Your task to perform on an android device: check android version Image 0: 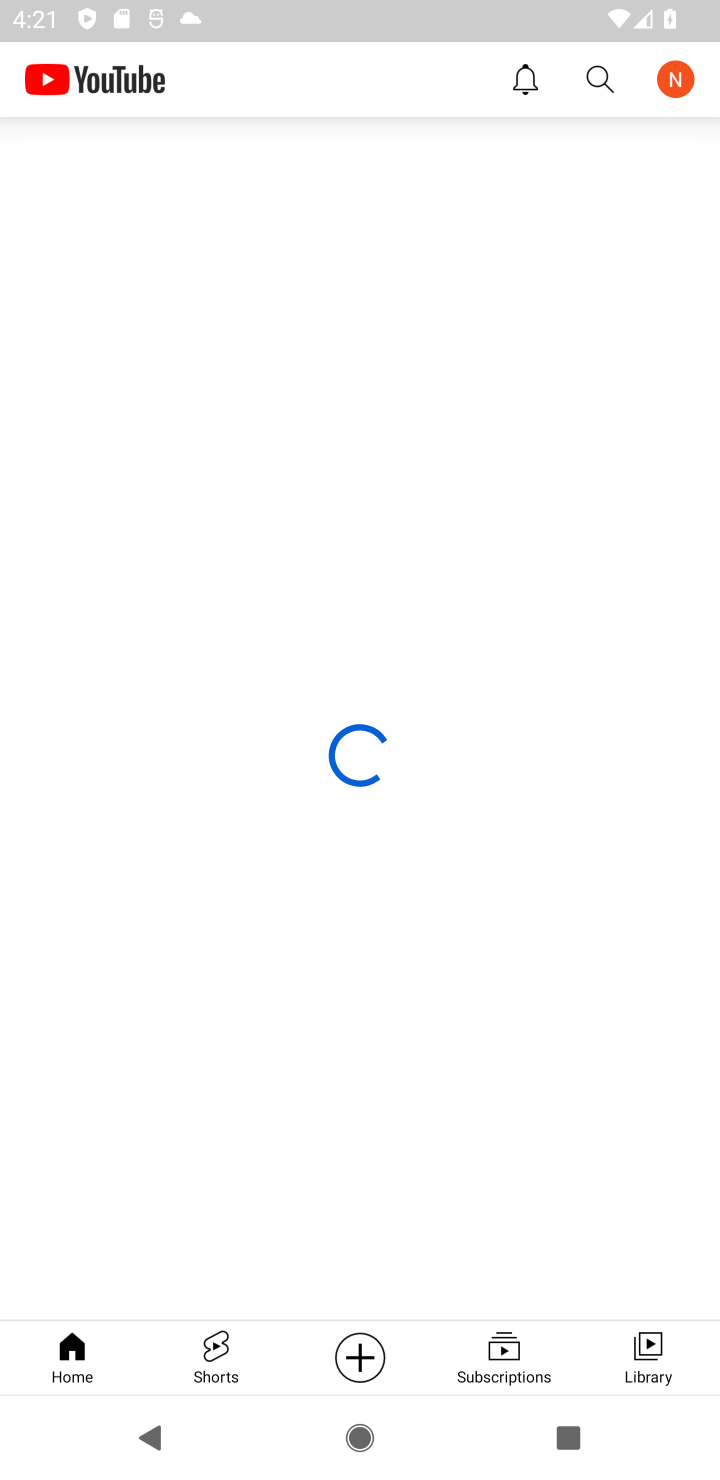
Step 0: press home button
Your task to perform on an android device: check android version Image 1: 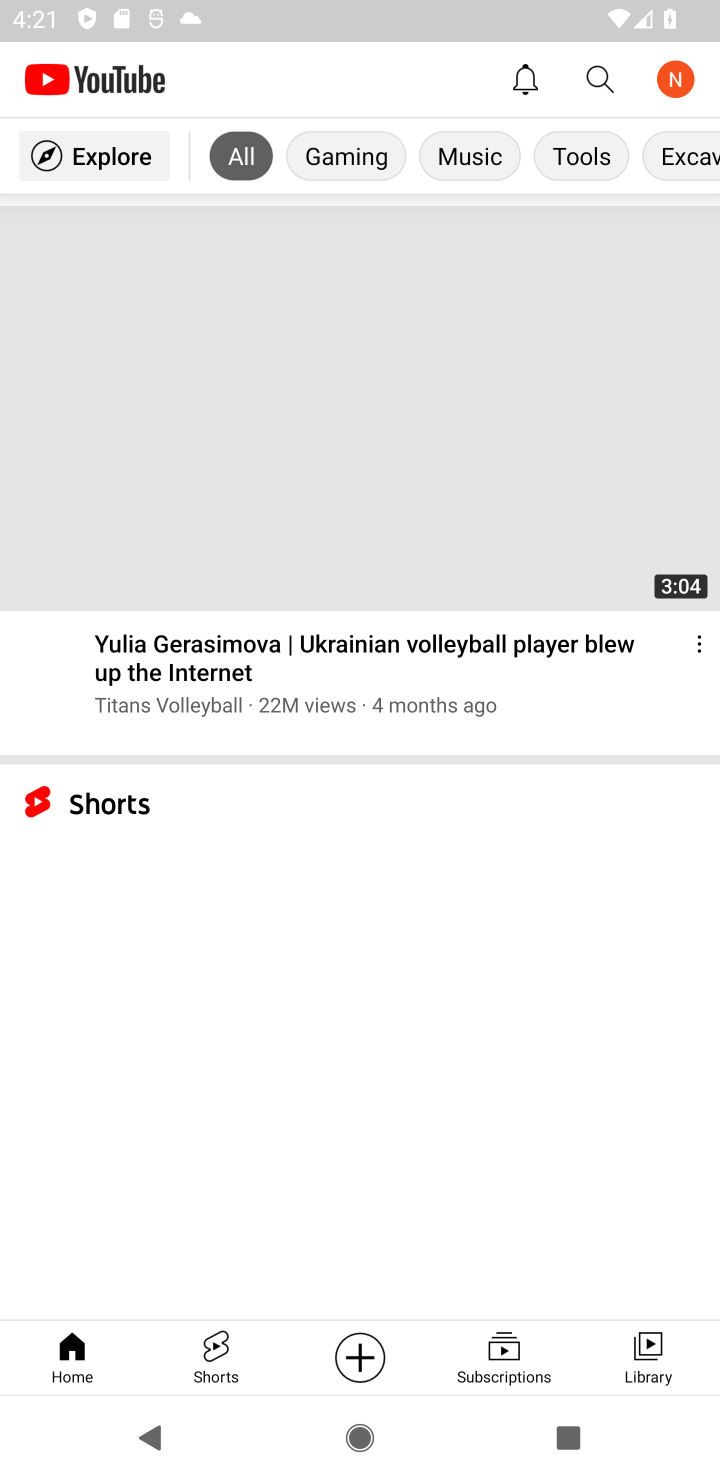
Step 1: drag from (406, 828) to (446, 561)
Your task to perform on an android device: check android version Image 2: 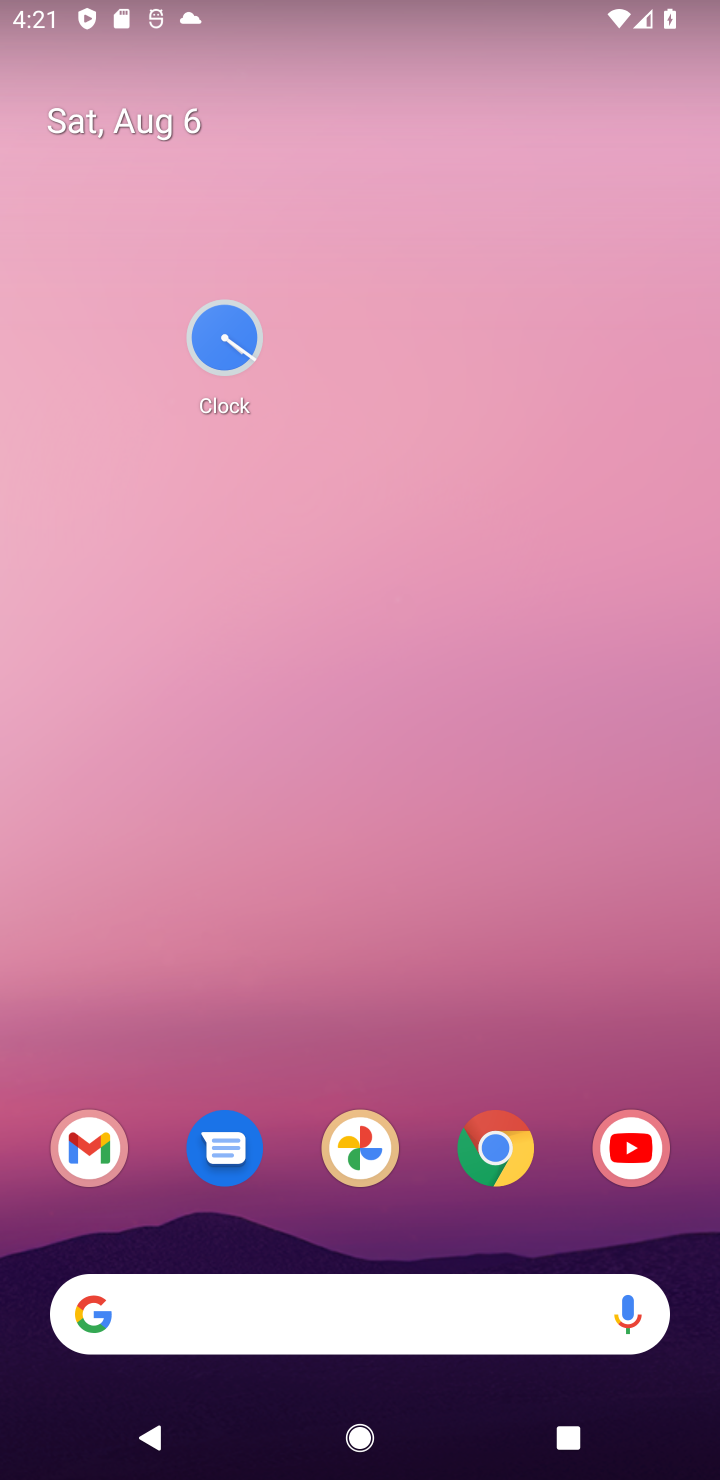
Step 2: drag from (426, 1000) to (486, 103)
Your task to perform on an android device: check android version Image 3: 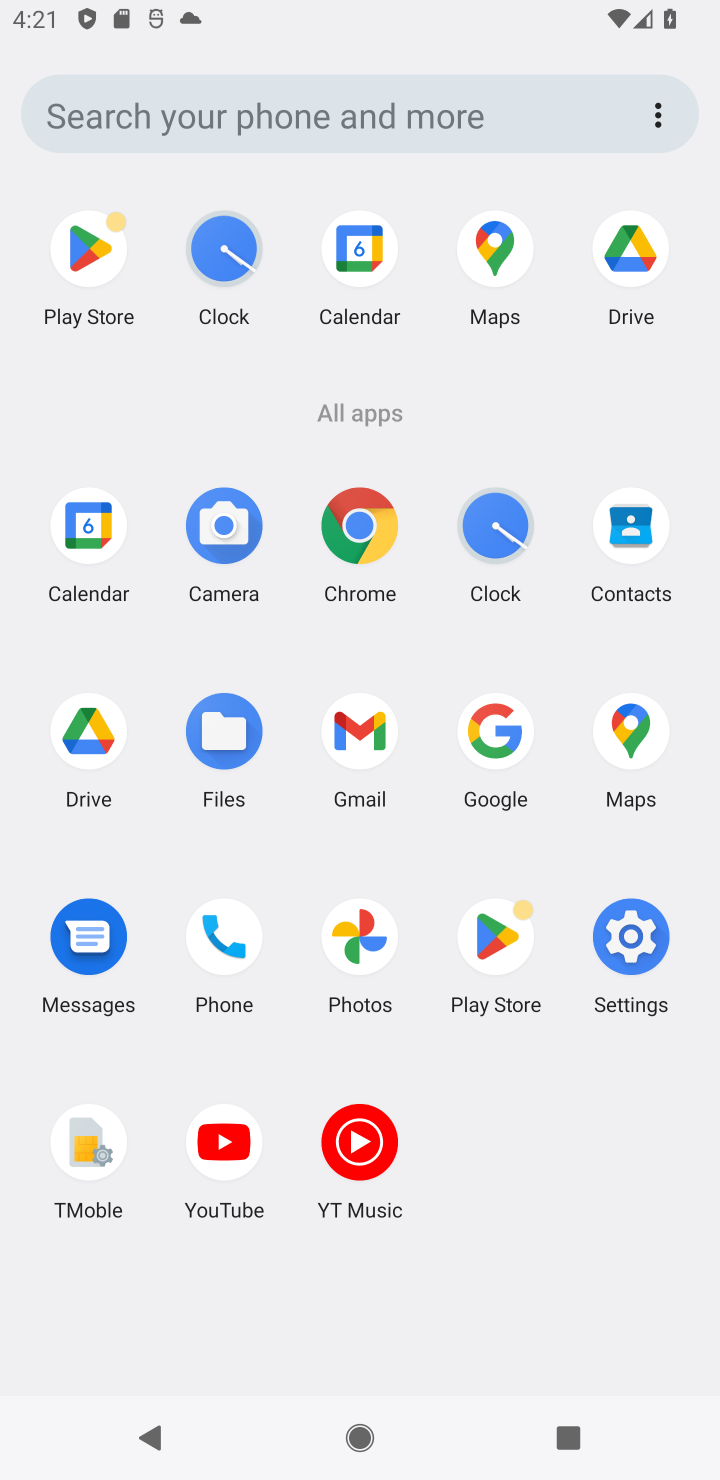
Step 3: click (632, 949)
Your task to perform on an android device: check android version Image 4: 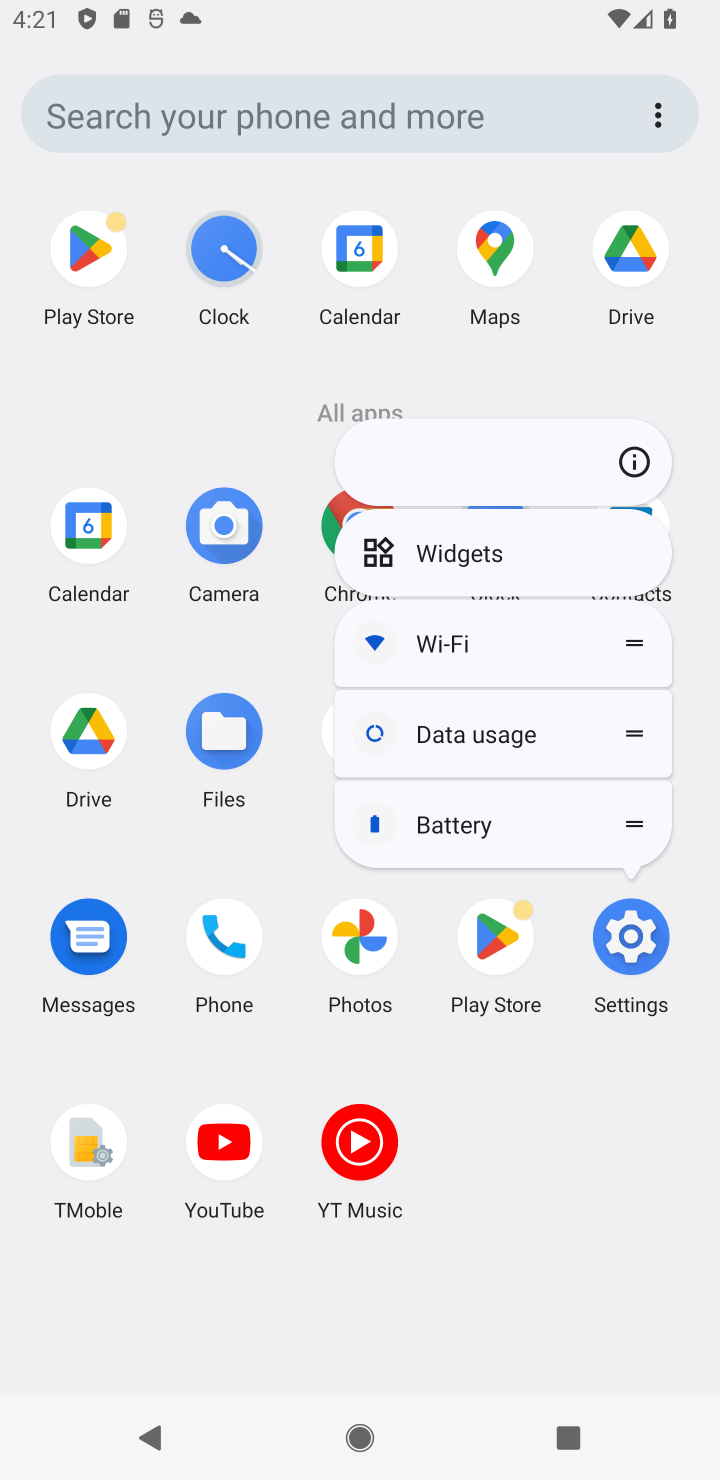
Step 4: click (612, 459)
Your task to perform on an android device: check android version Image 5: 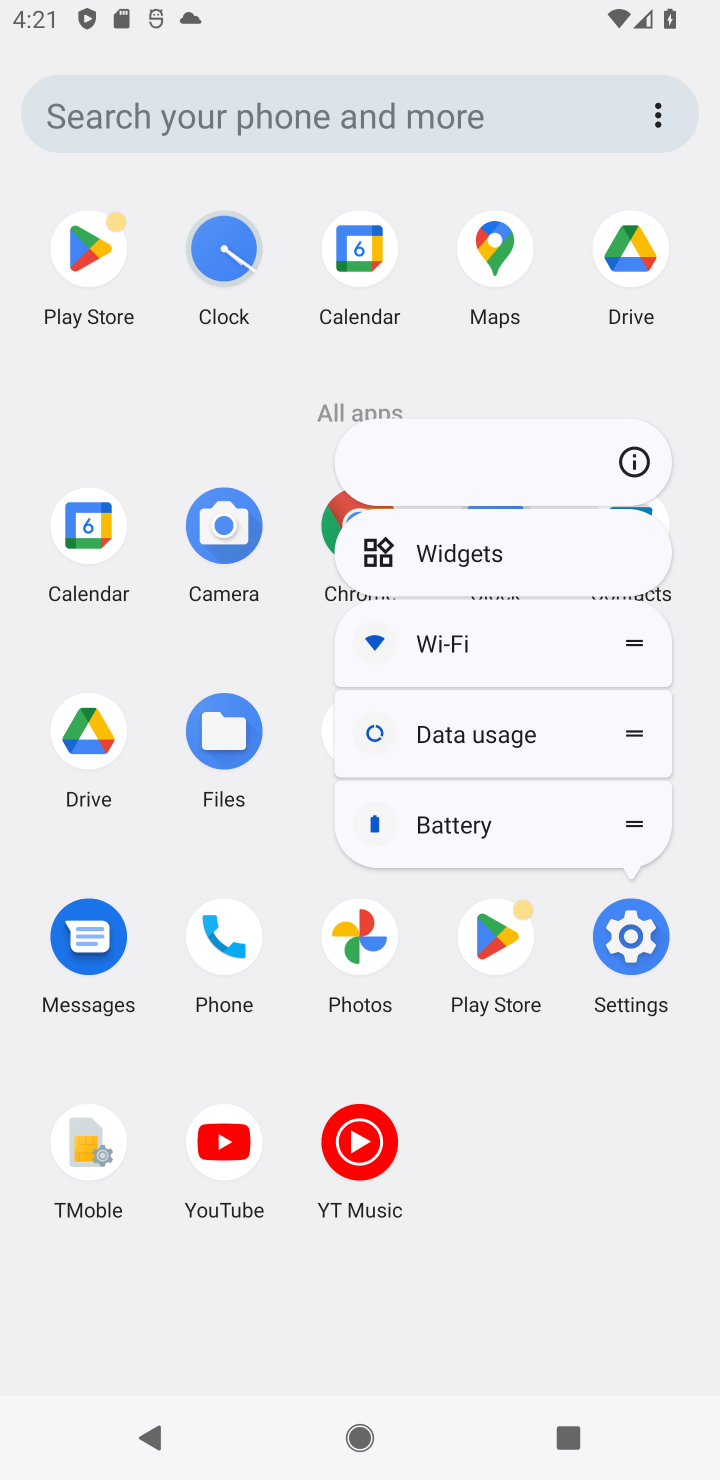
Step 5: click (641, 460)
Your task to perform on an android device: check android version Image 6: 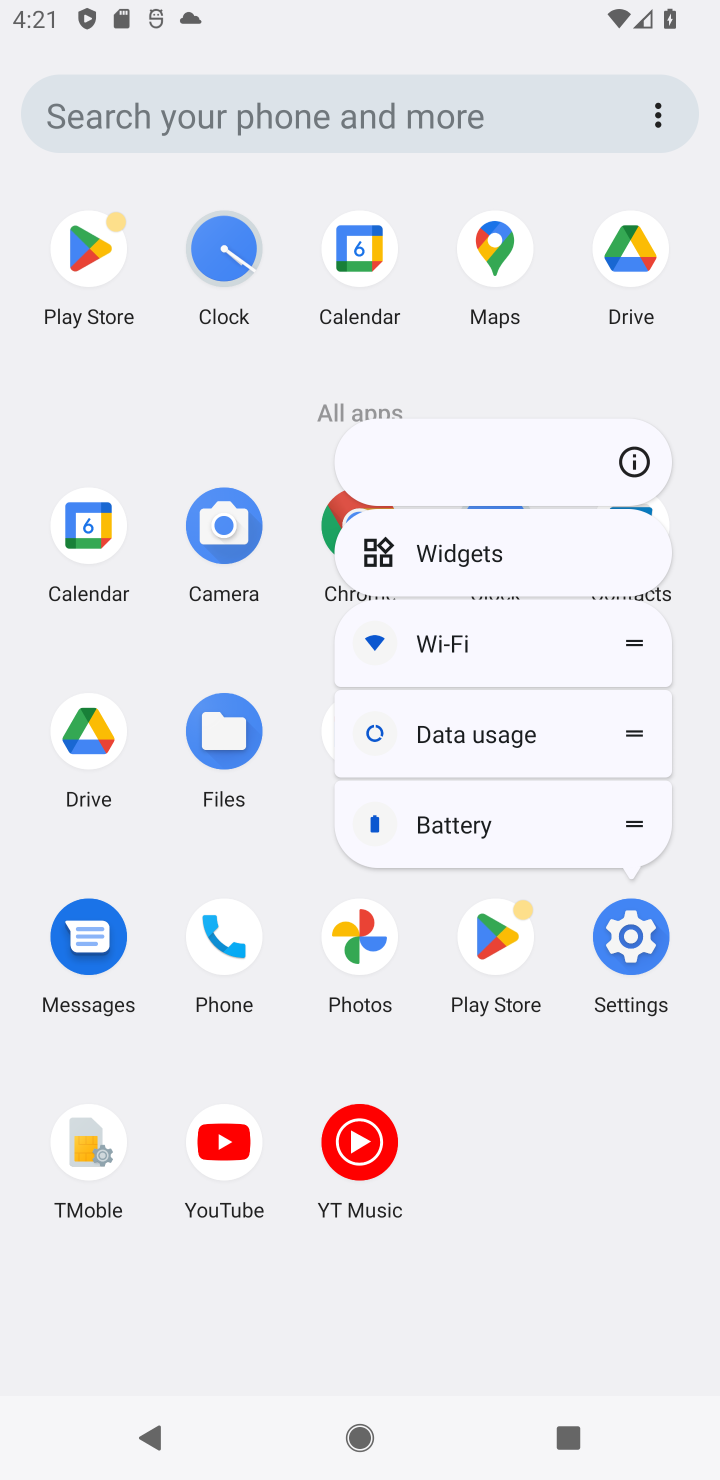
Step 6: click (635, 467)
Your task to perform on an android device: check android version Image 7: 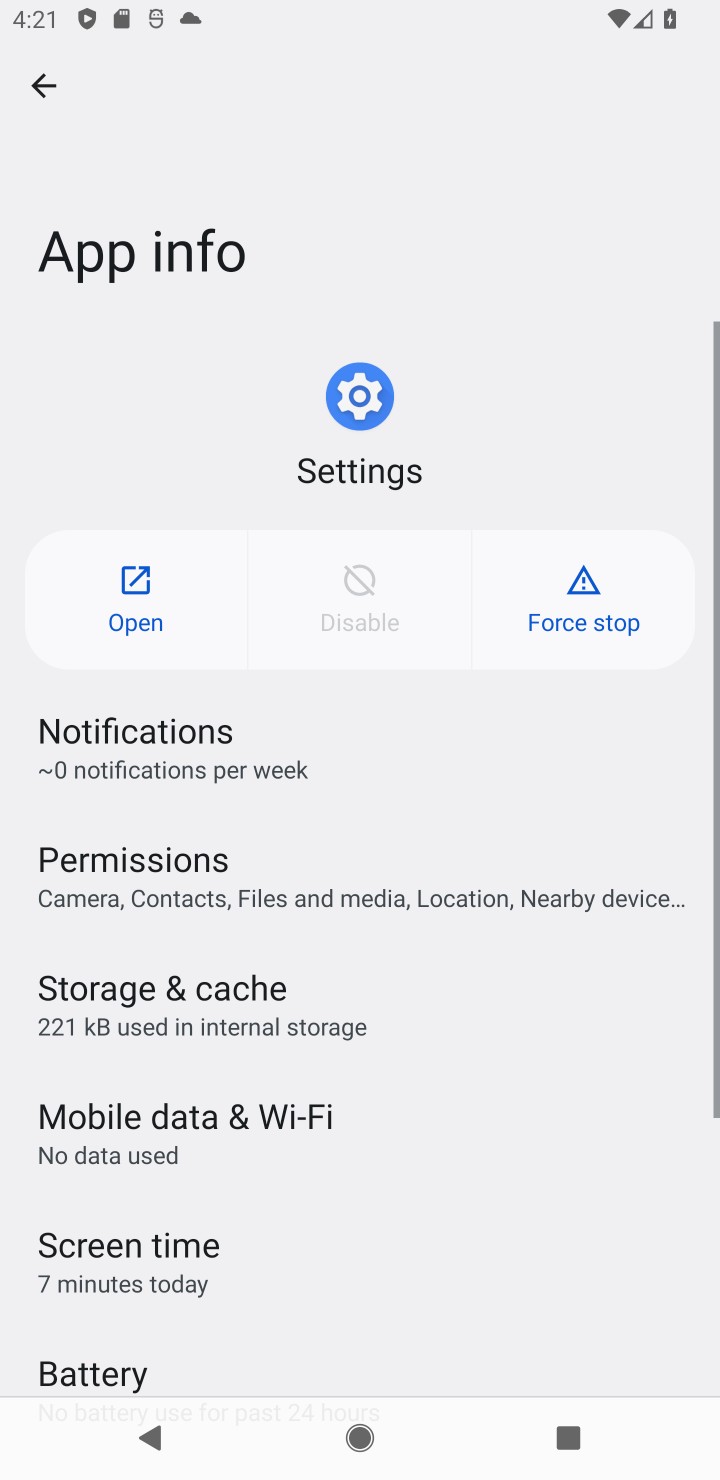
Step 7: click (113, 598)
Your task to perform on an android device: check android version Image 8: 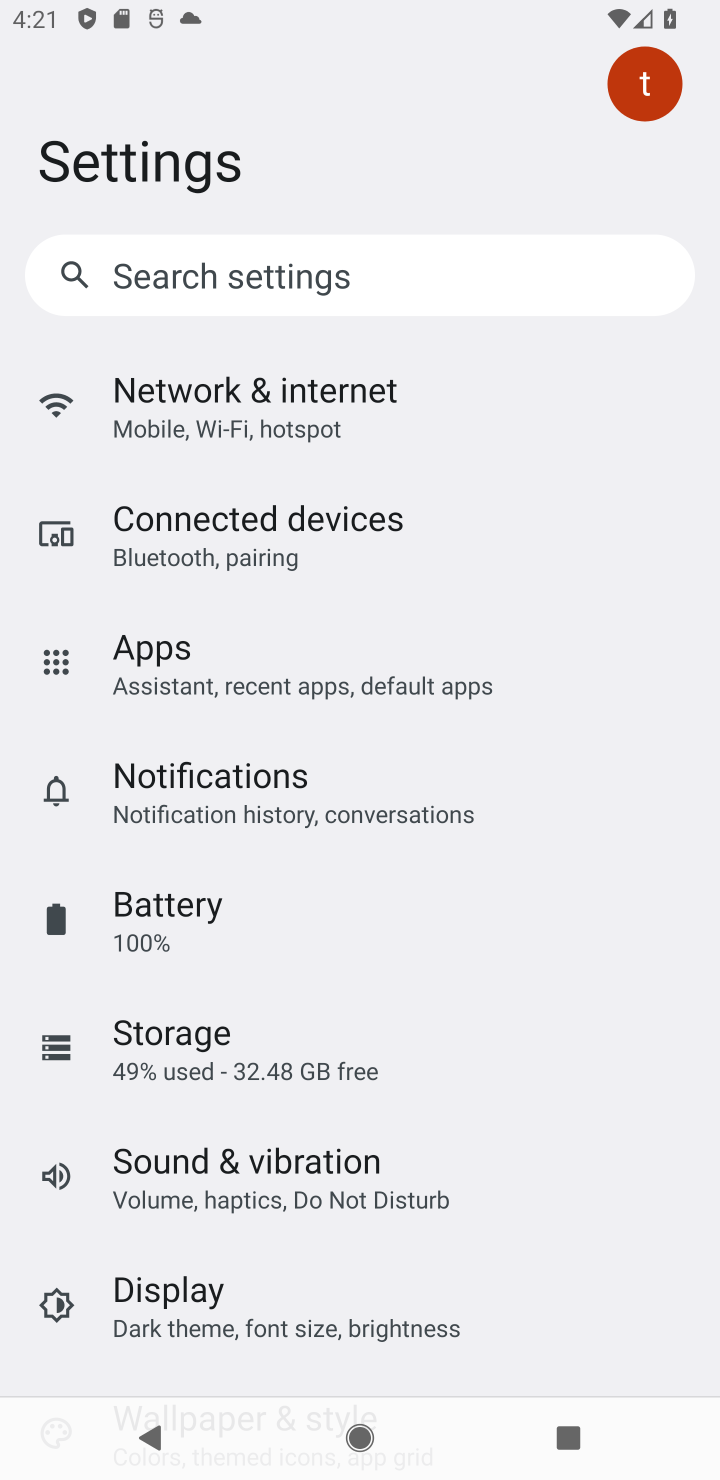
Step 8: drag from (362, 1055) to (372, 411)
Your task to perform on an android device: check android version Image 9: 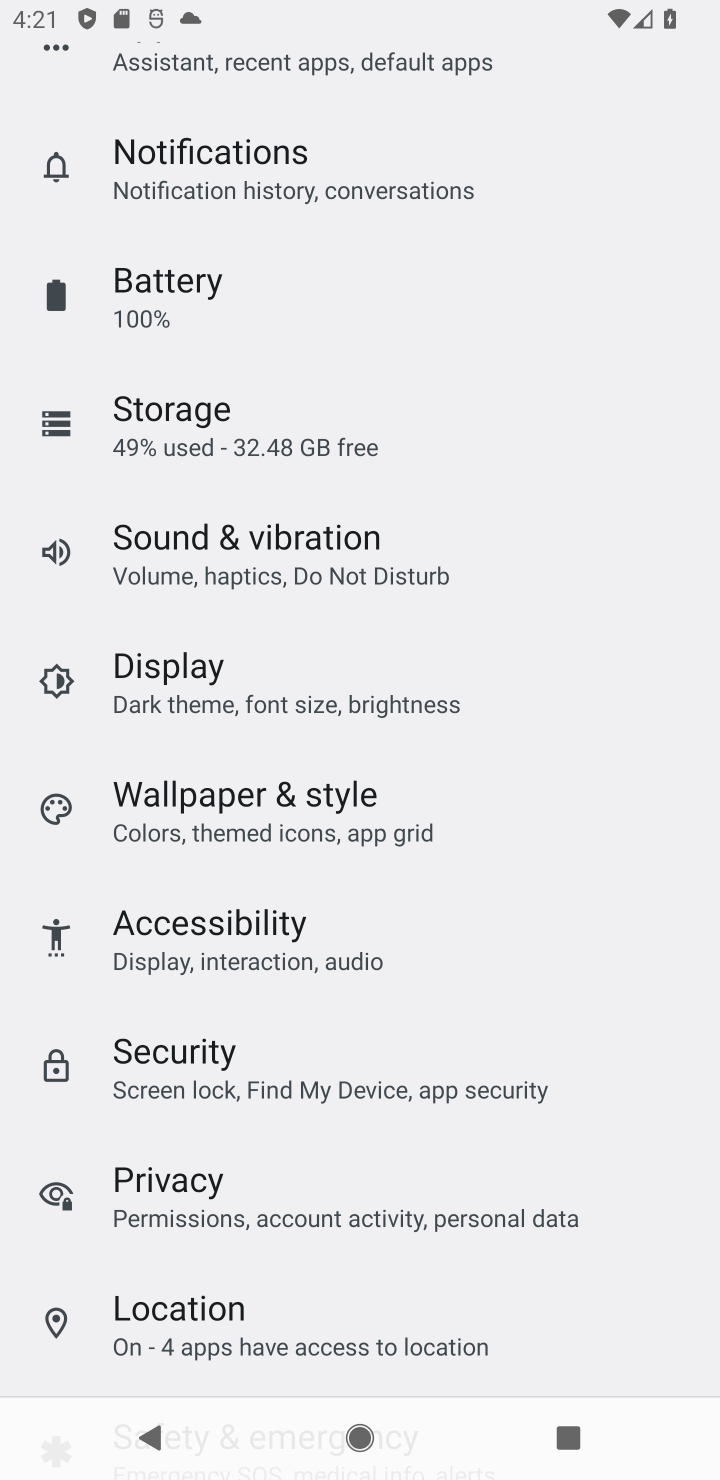
Step 9: drag from (350, 1246) to (393, 624)
Your task to perform on an android device: check android version Image 10: 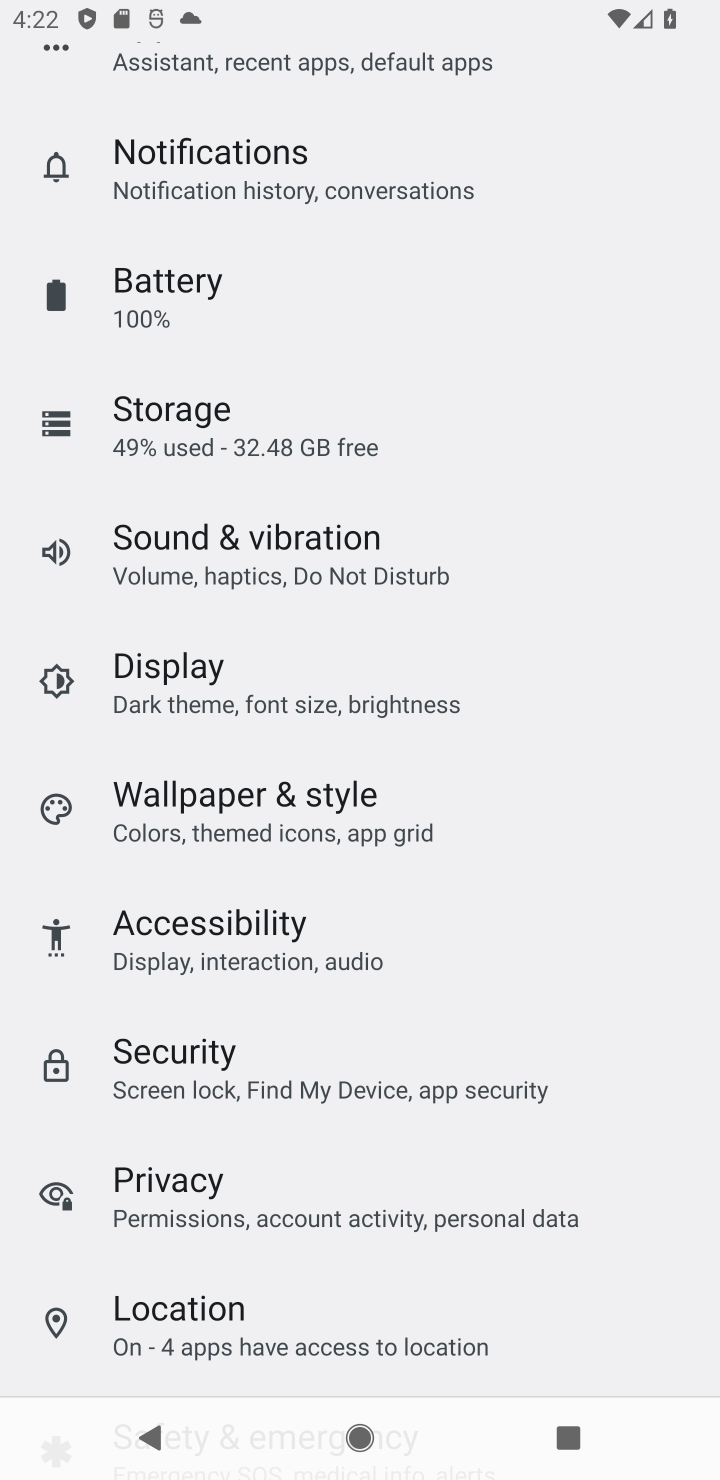
Step 10: drag from (365, 313) to (657, 1)
Your task to perform on an android device: check android version Image 11: 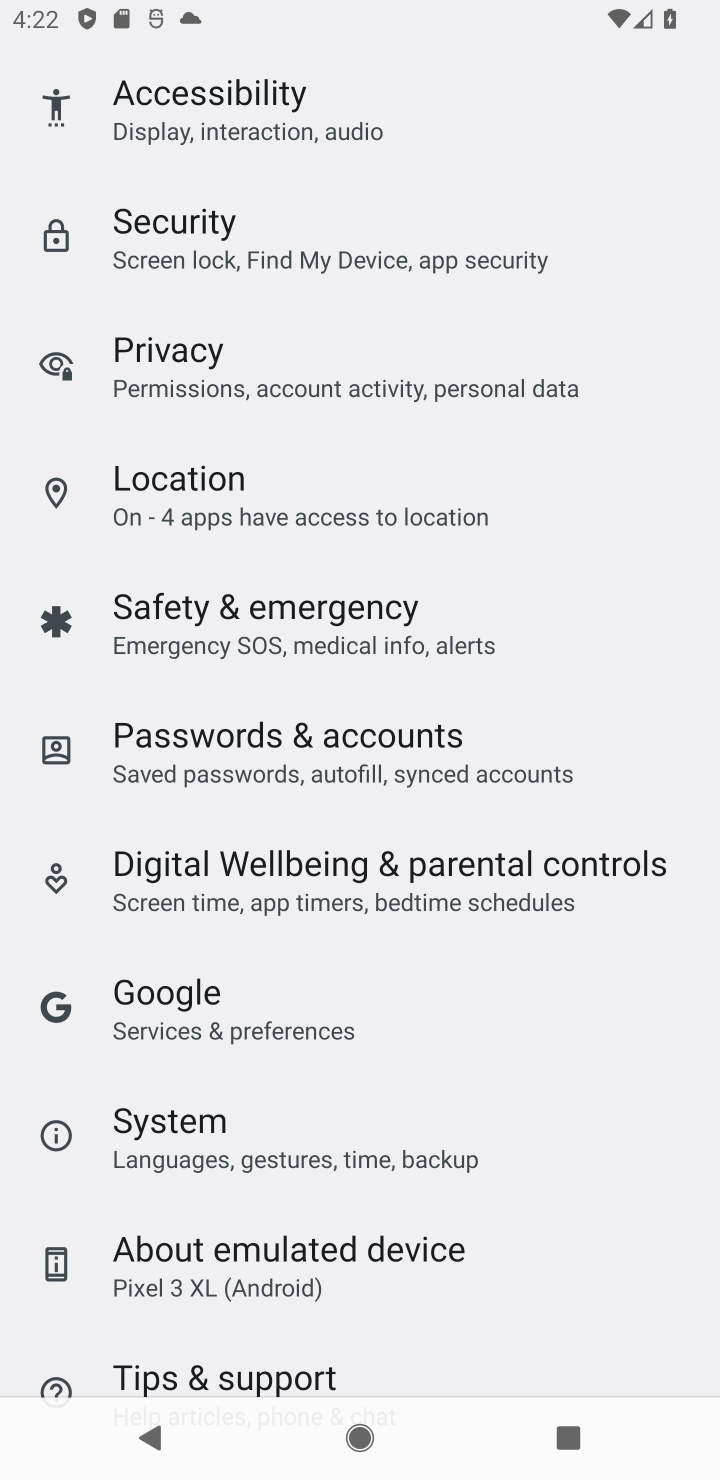
Step 11: drag from (256, 1277) to (386, 495)
Your task to perform on an android device: check android version Image 12: 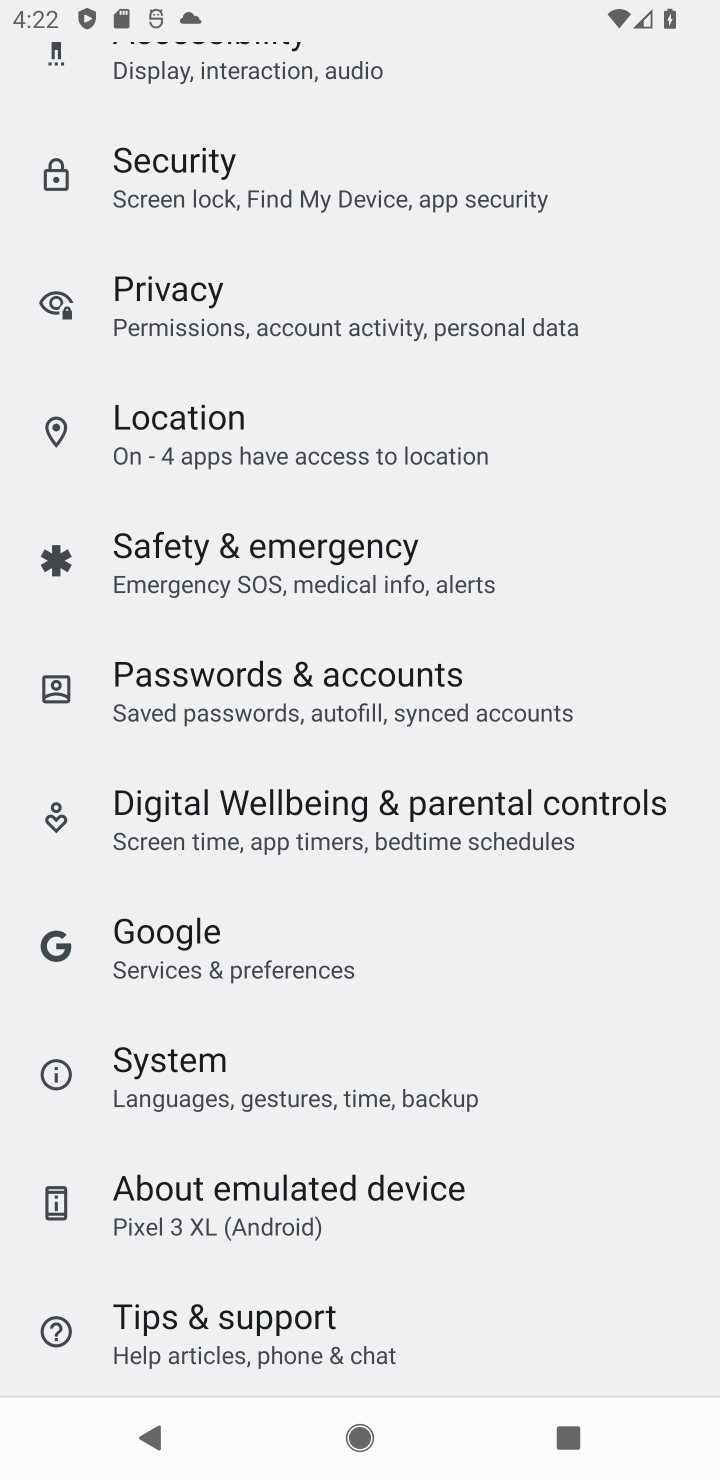
Step 12: drag from (352, 1047) to (411, 350)
Your task to perform on an android device: check android version Image 13: 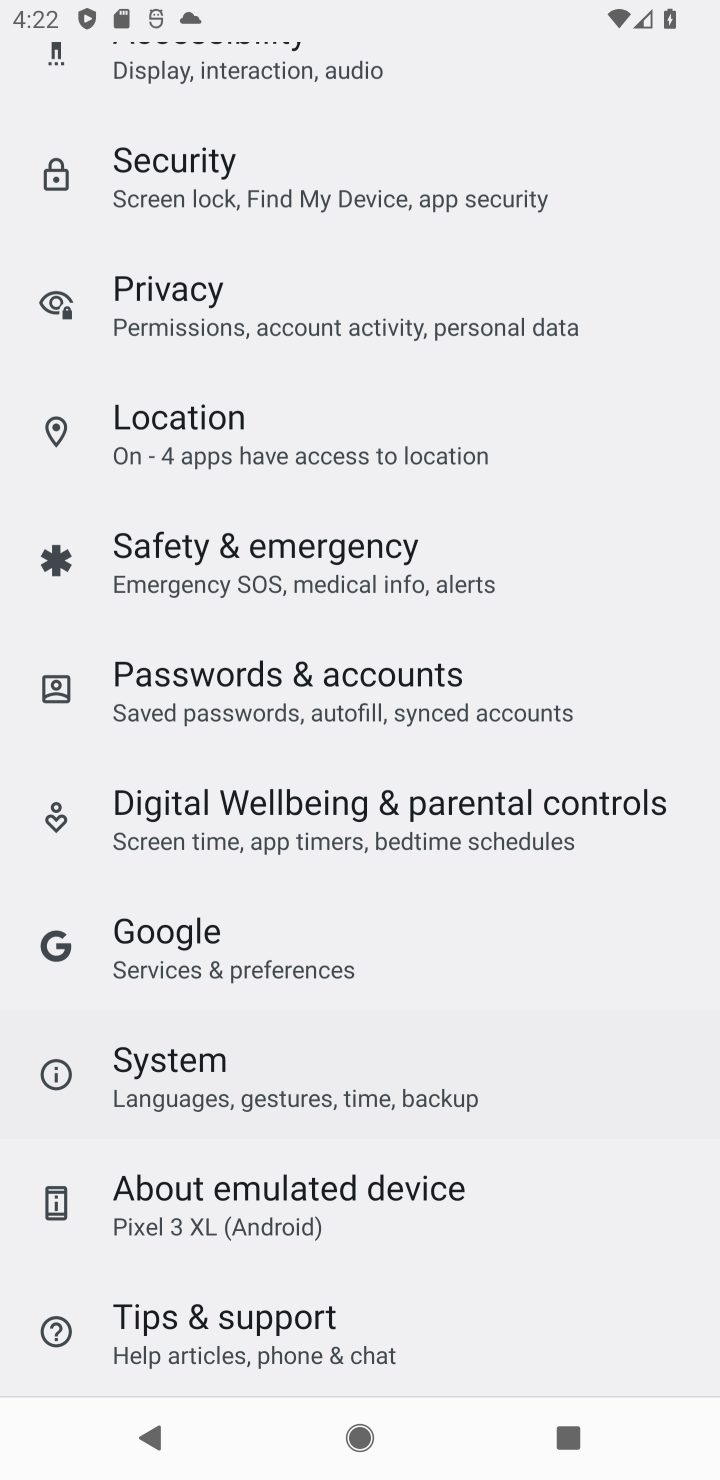
Step 13: drag from (290, 1314) to (356, 619)
Your task to perform on an android device: check android version Image 14: 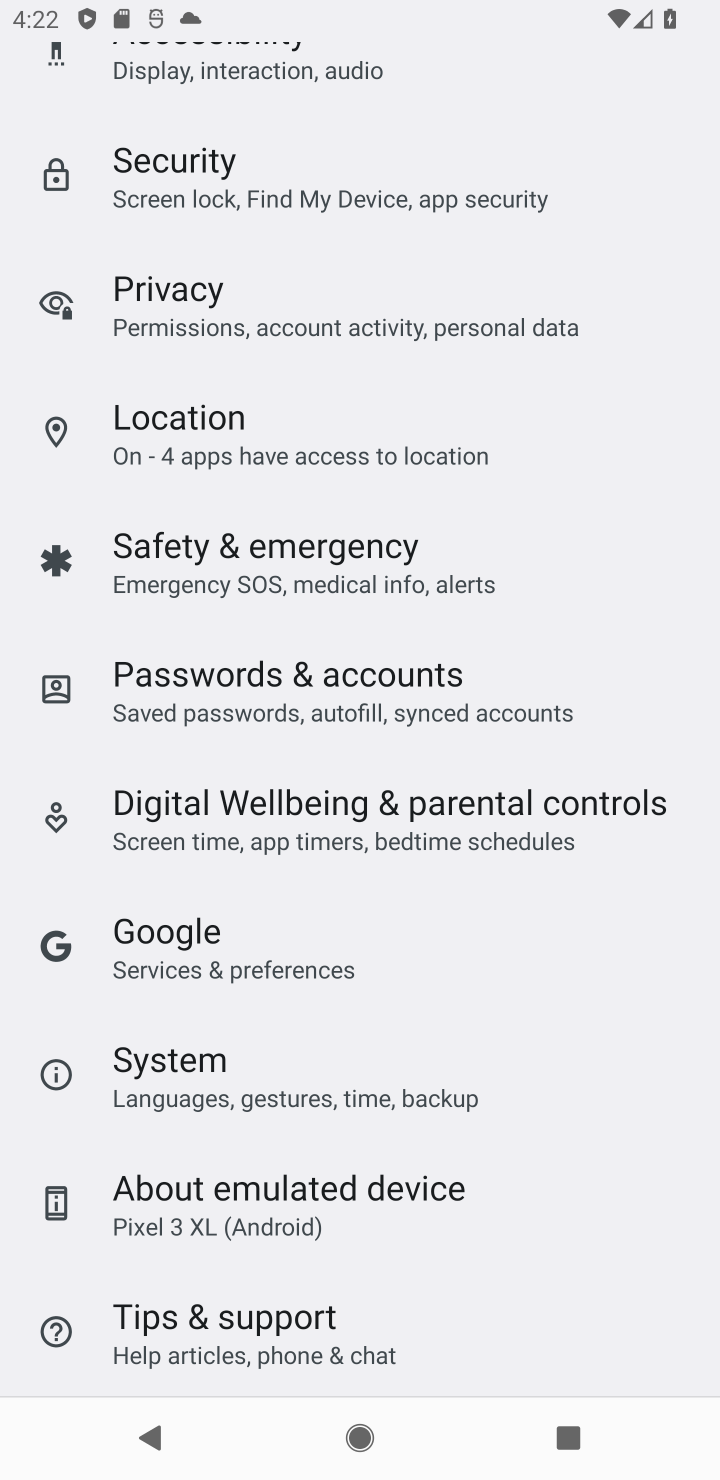
Step 14: click (247, 1207)
Your task to perform on an android device: check android version Image 15: 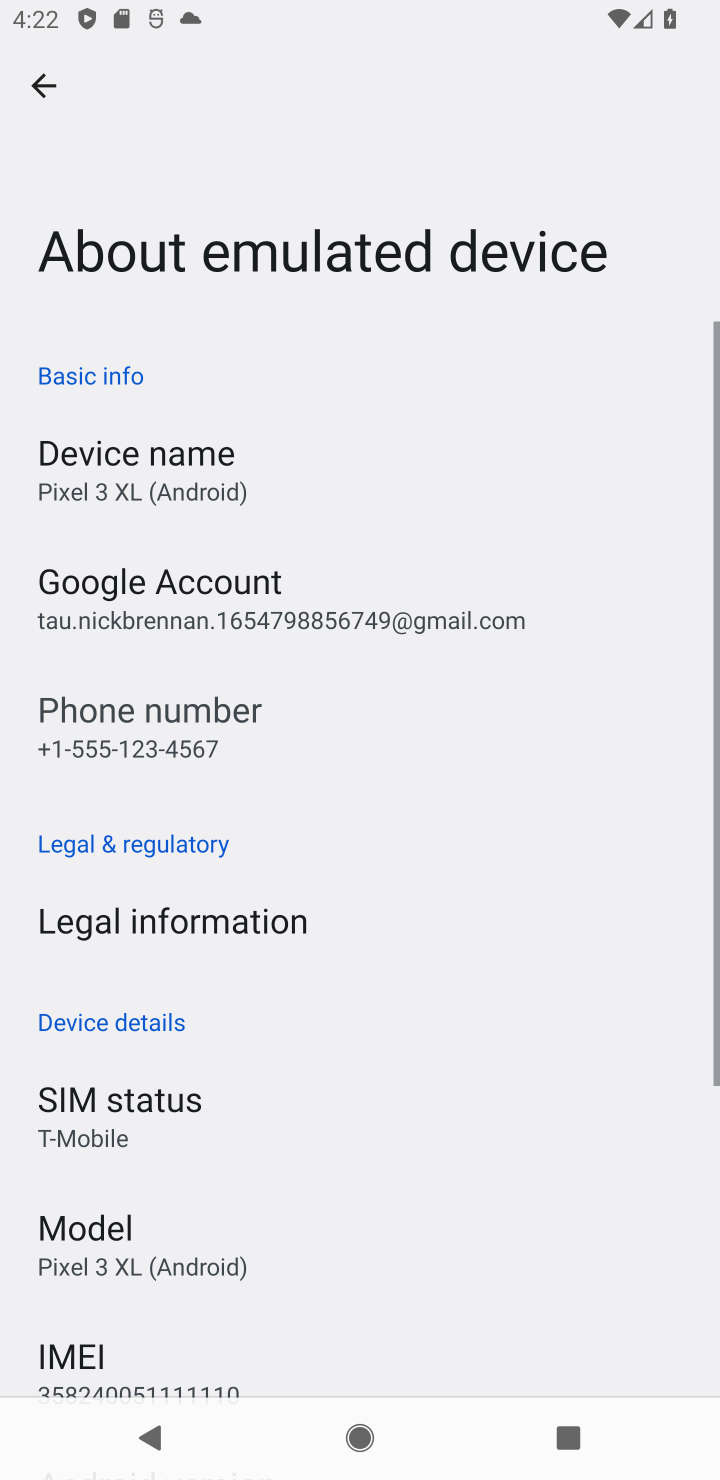
Step 15: drag from (279, 1029) to (301, 413)
Your task to perform on an android device: check android version Image 16: 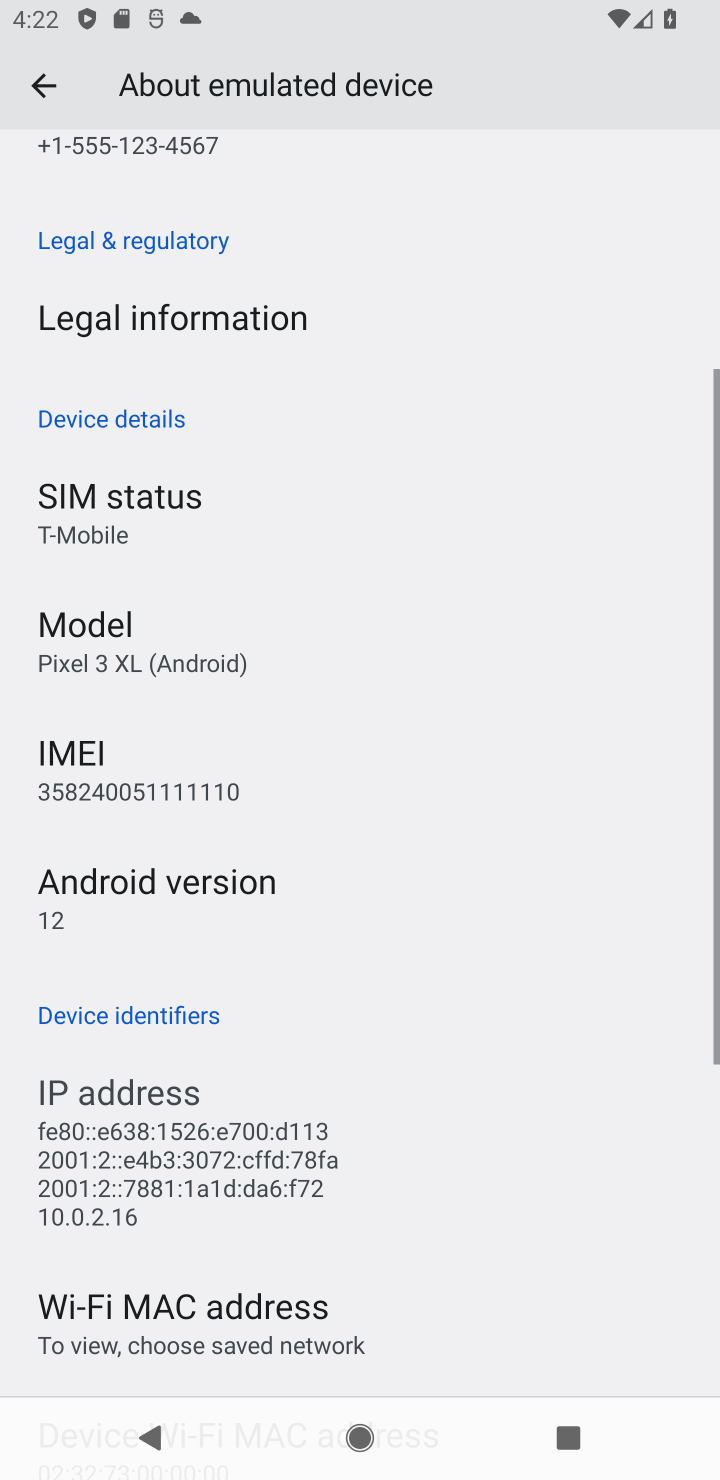
Step 16: drag from (265, 1145) to (328, 393)
Your task to perform on an android device: check android version Image 17: 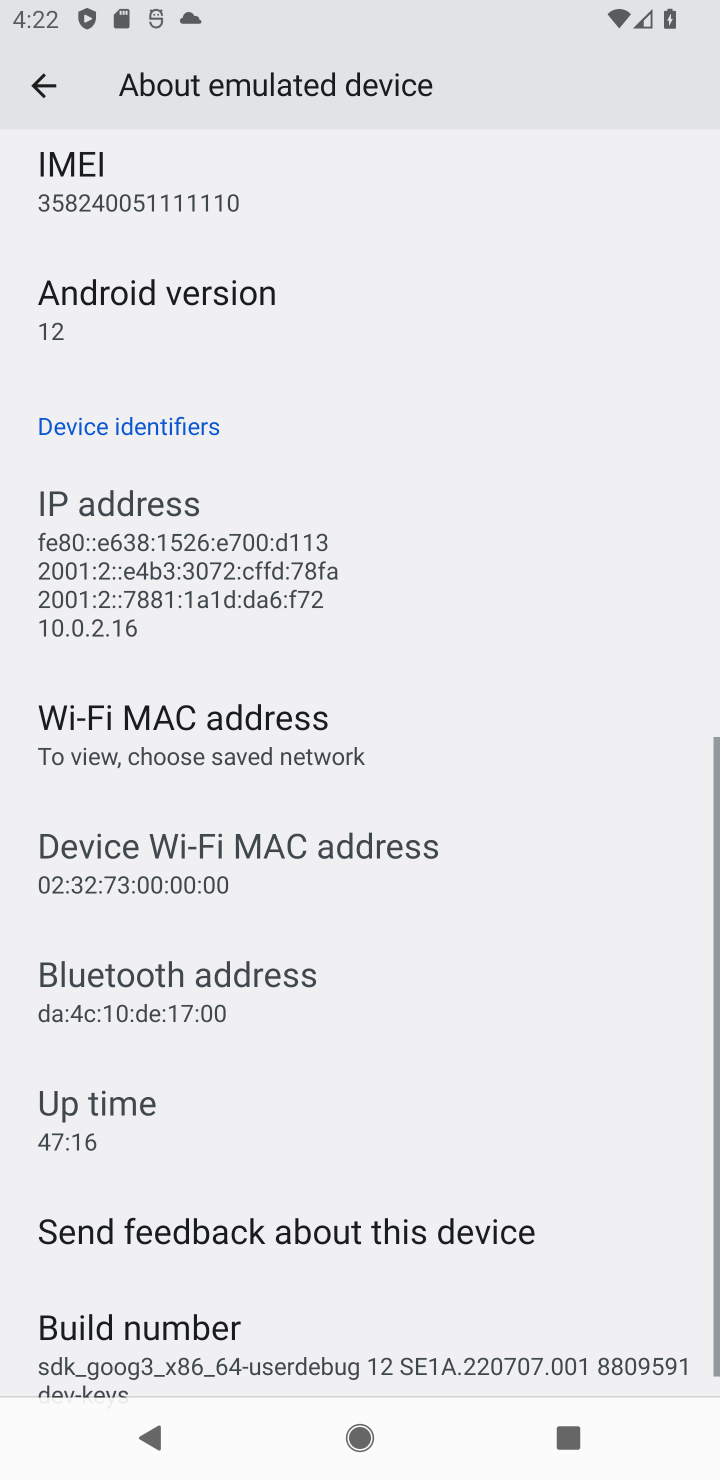
Step 17: click (260, 290)
Your task to perform on an android device: check android version Image 18: 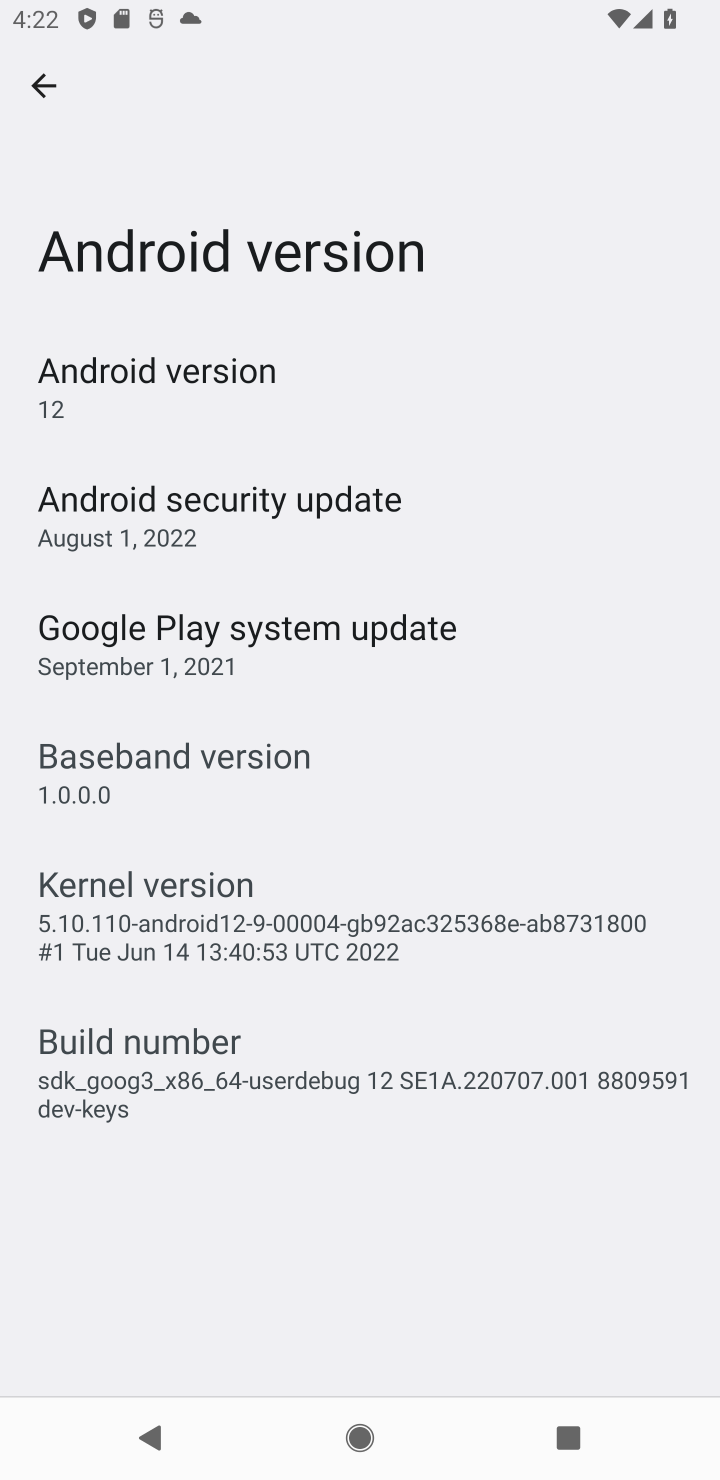
Step 18: click (267, 398)
Your task to perform on an android device: check android version Image 19: 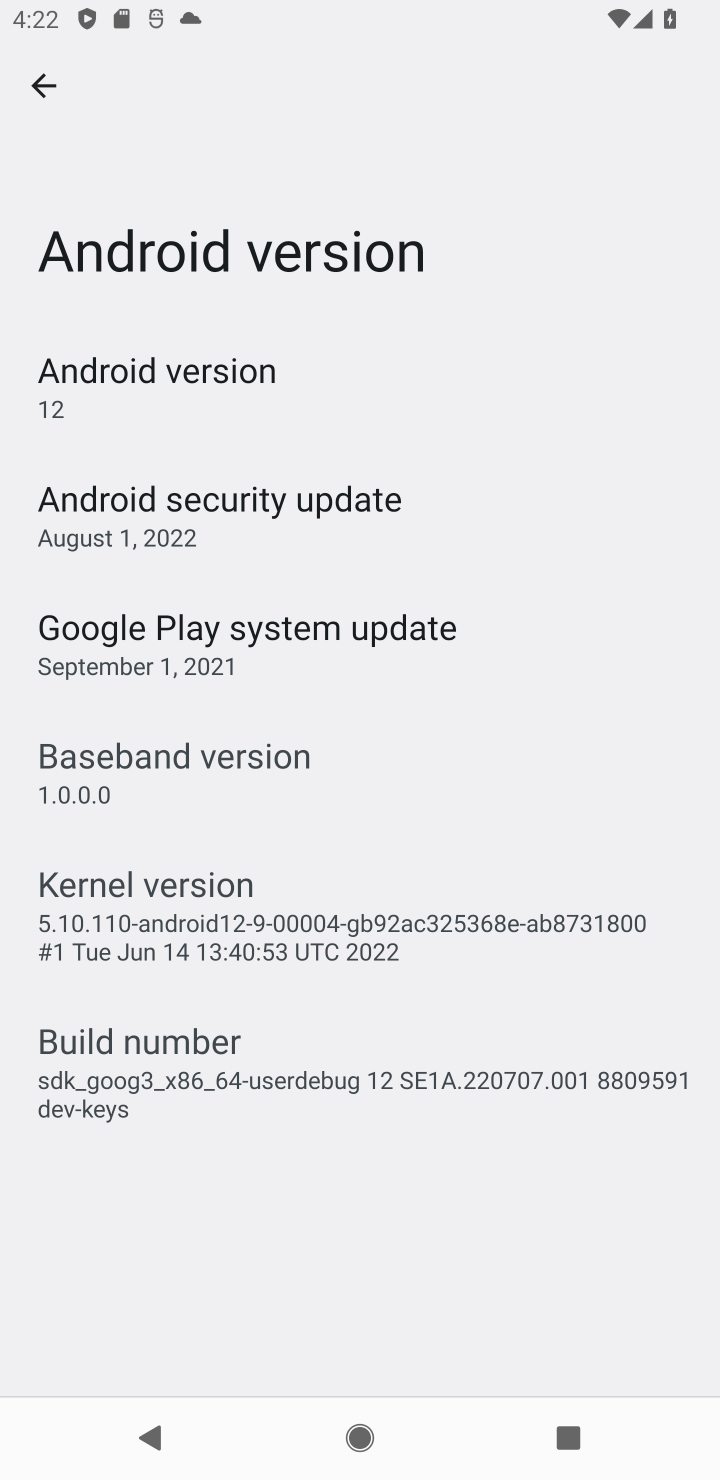
Step 19: task complete